Your task to perform on an android device: turn off improve location accuracy Image 0: 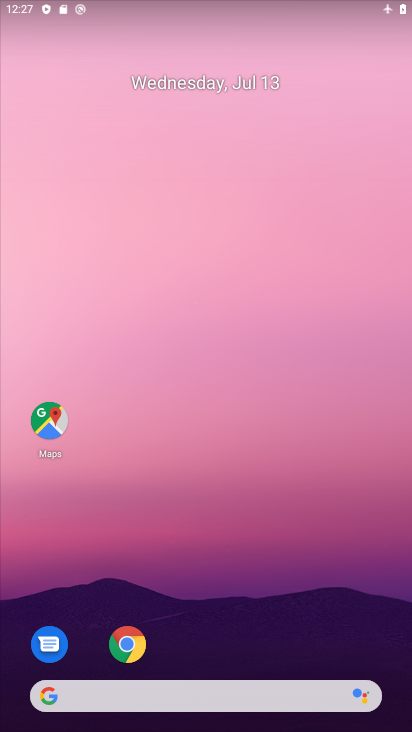
Step 0: drag from (302, 644) to (243, 63)
Your task to perform on an android device: turn off improve location accuracy Image 1: 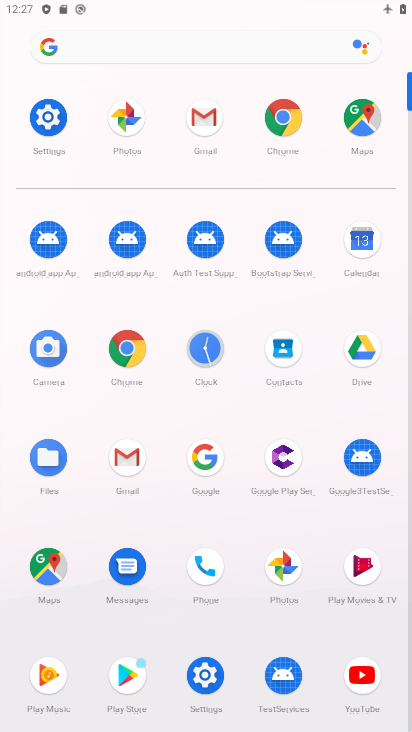
Step 1: click (56, 112)
Your task to perform on an android device: turn off improve location accuracy Image 2: 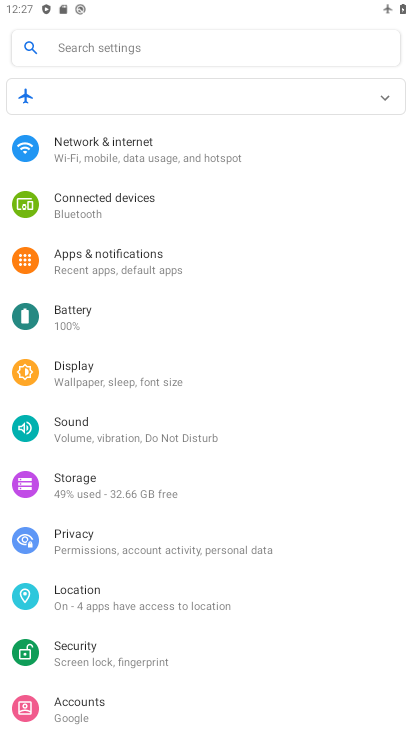
Step 2: click (128, 601)
Your task to perform on an android device: turn off improve location accuracy Image 3: 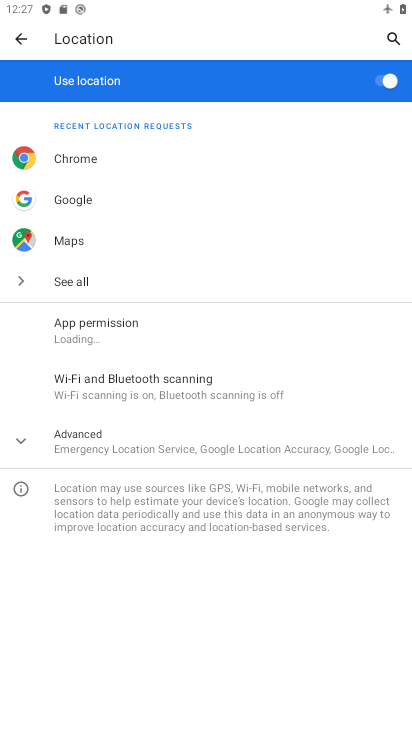
Step 3: click (110, 442)
Your task to perform on an android device: turn off improve location accuracy Image 4: 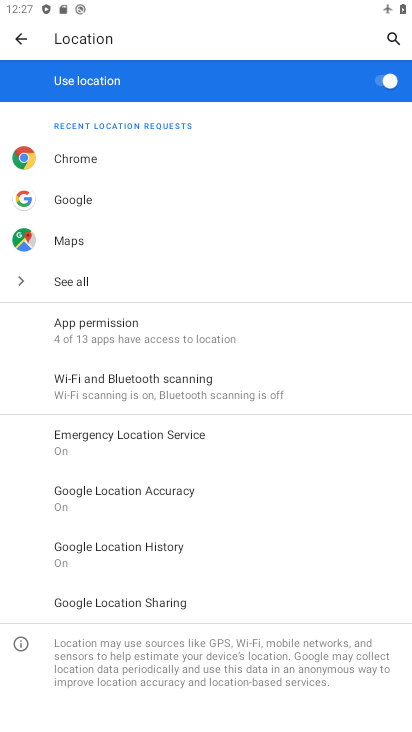
Step 4: click (153, 494)
Your task to perform on an android device: turn off improve location accuracy Image 5: 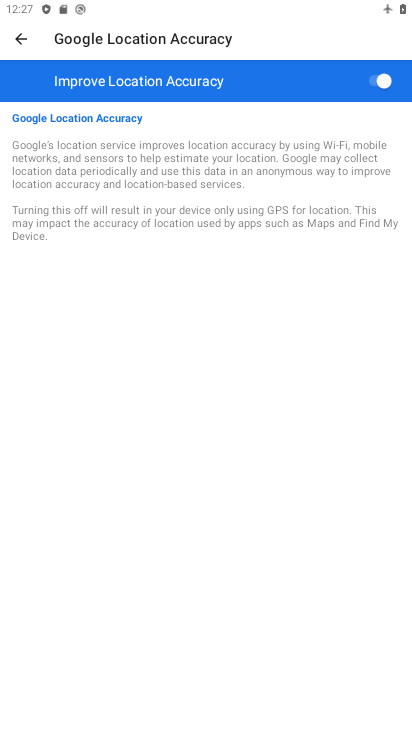
Step 5: click (381, 75)
Your task to perform on an android device: turn off improve location accuracy Image 6: 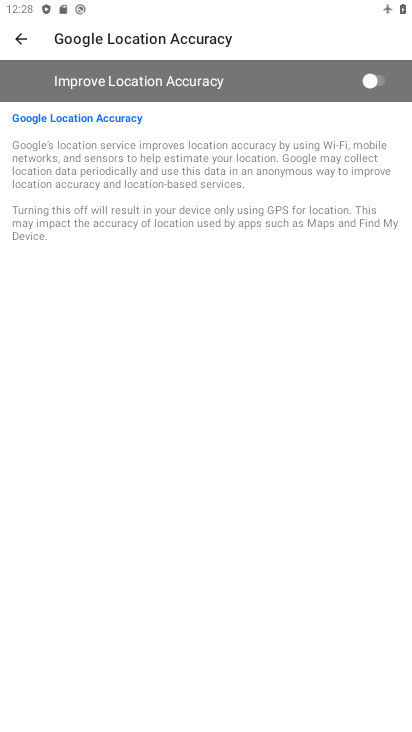
Step 6: task complete